Your task to perform on an android device: turn off airplane mode Image 0: 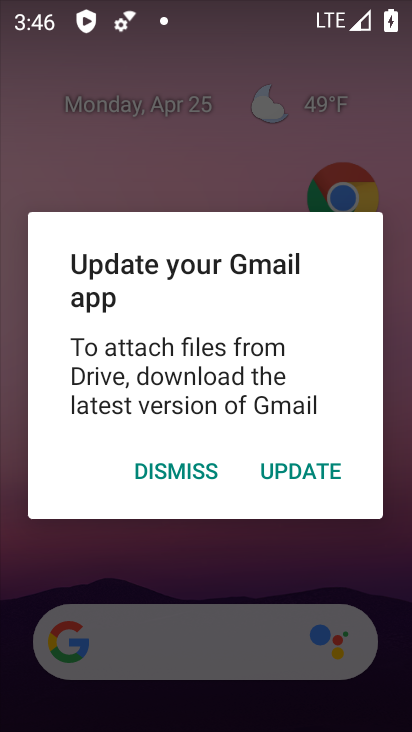
Step 0: press home button
Your task to perform on an android device: turn off airplane mode Image 1: 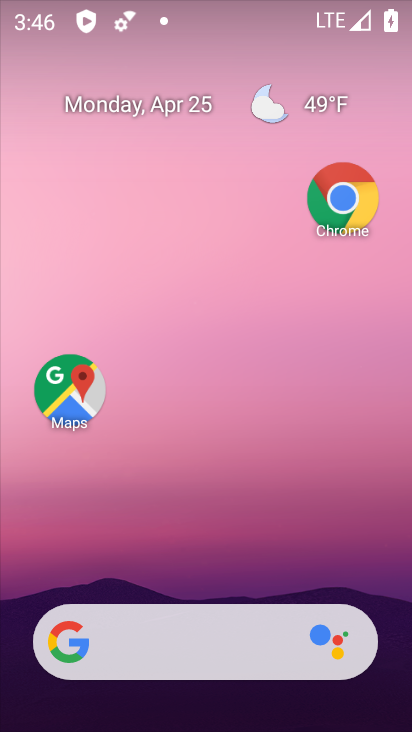
Step 1: drag from (150, 644) to (266, 158)
Your task to perform on an android device: turn off airplane mode Image 2: 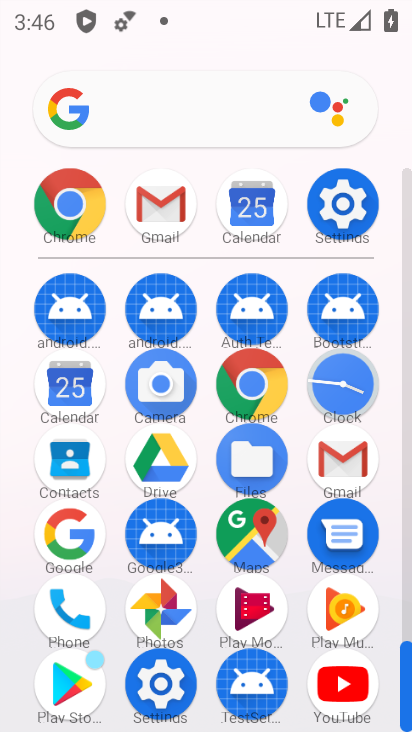
Step 2: click (344, 206)
Your task to perform on an android device: turn off airplane mode Image 3: 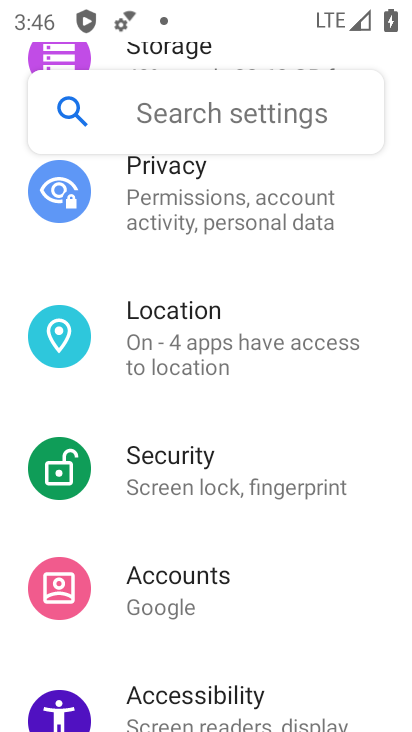
Step 3: drag from (298, 164) to (273, 578)
Your task to perform on an android device: turn off airplane mode Image 4: 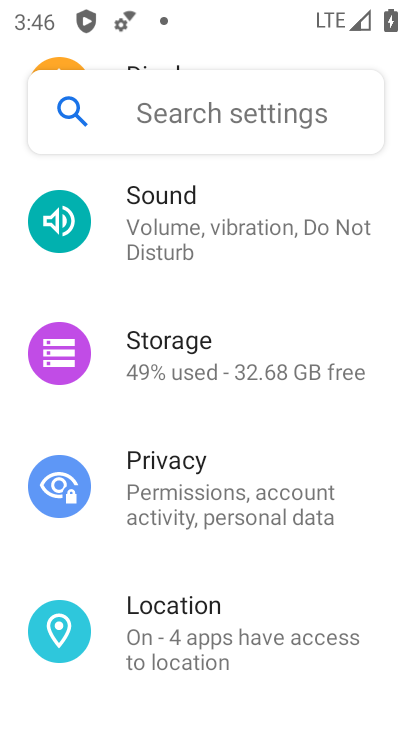
Step 4: drag from (317, 189) to (240, 565)
Your task to perform on an android device: turn off airplane mode Image 5: 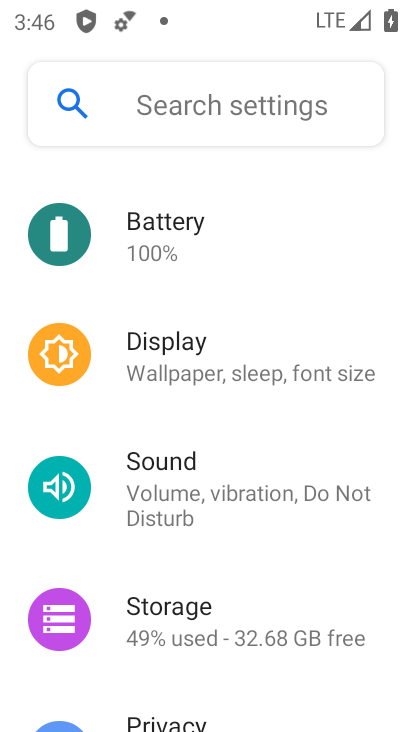
Step 5: drag from (296, 200) to (249, 676)
Your task to perform on an android device: turn off airplane mode Image 6: 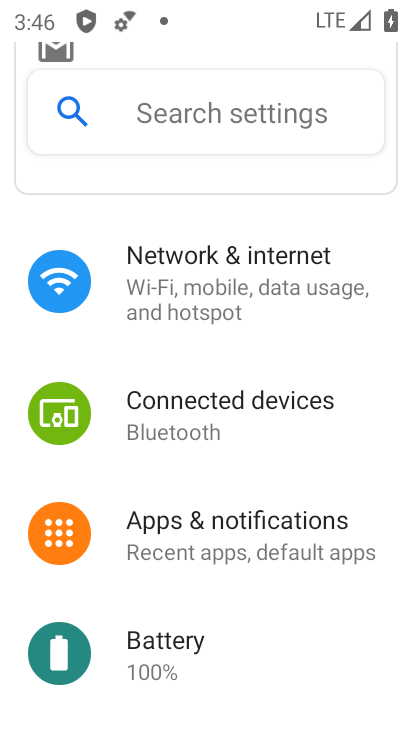
Step 6: click (226, 272)
Your task to perform on an android device: turn off airplane mode Image 7: 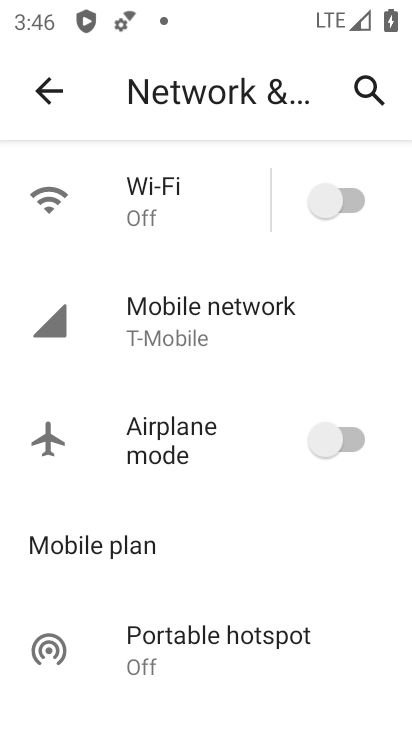
Step 7: task complete